Your task to perform on an android device: open app "DoorDash - Dasher" Image 0: 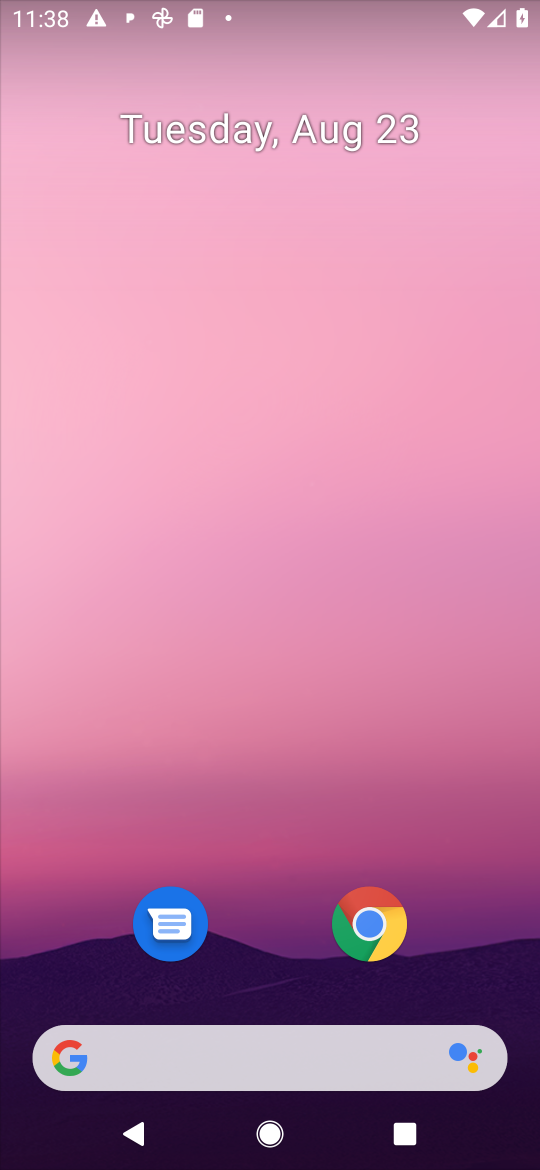
Step 0: press home button
Your task to perform on an android device: open app "DoorDash - Dasher" Image 1: 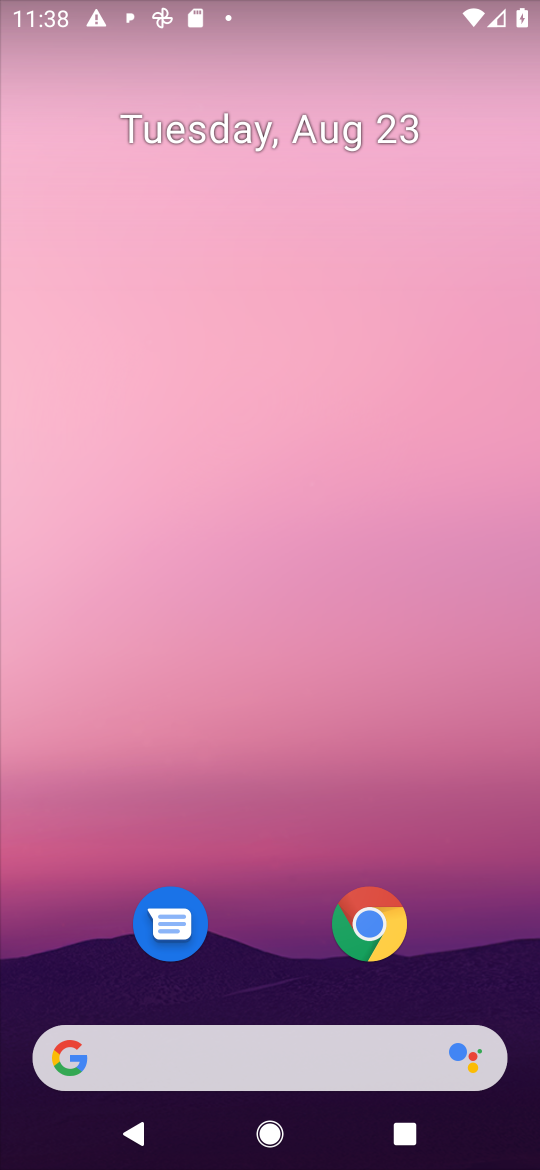
Step 1: drag from (462, 971) to (473, 136)
Your task to perform on an android device: open app "DoorDash - Dasher" Image 2: 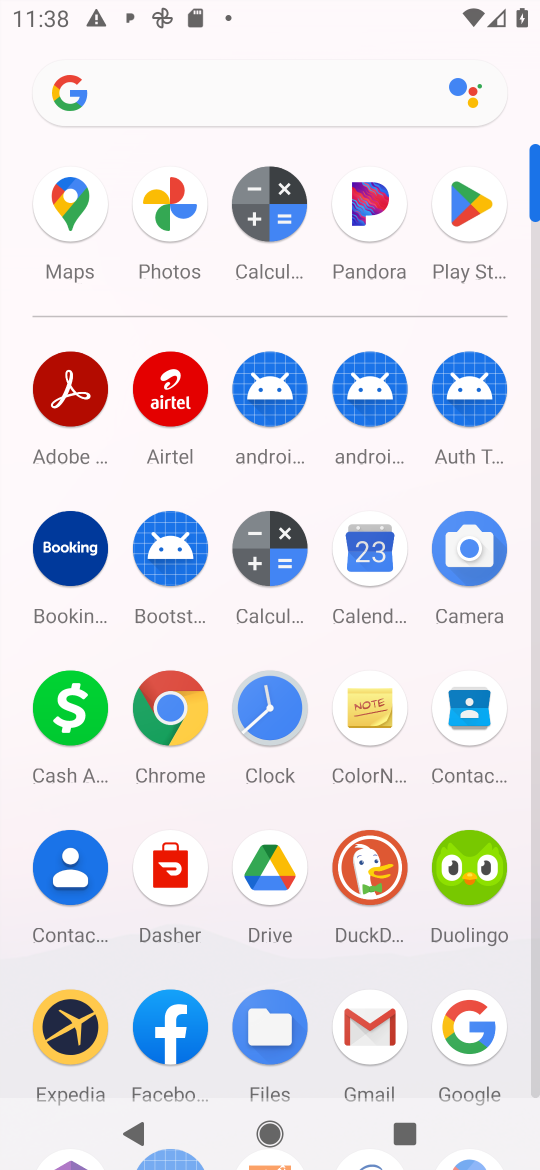
Step 2: click (473, 207)
Your task to perform on an android device: open app "DoorDash - Dasher" Image 3: 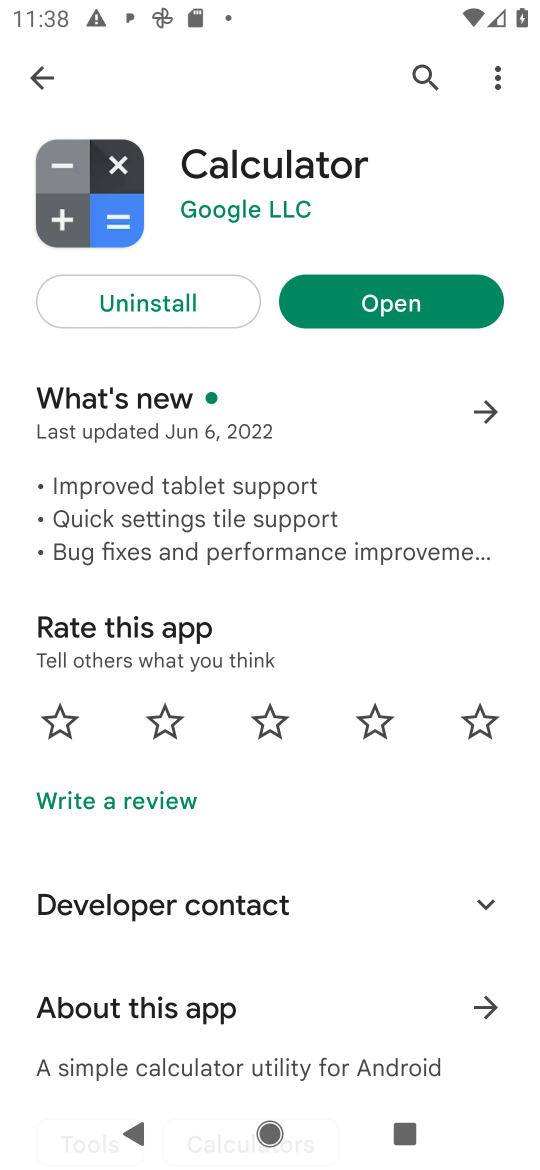
Step 3: press back button
Your task to perform on an android device: open app "DoorDash - Dasher" Image 4: 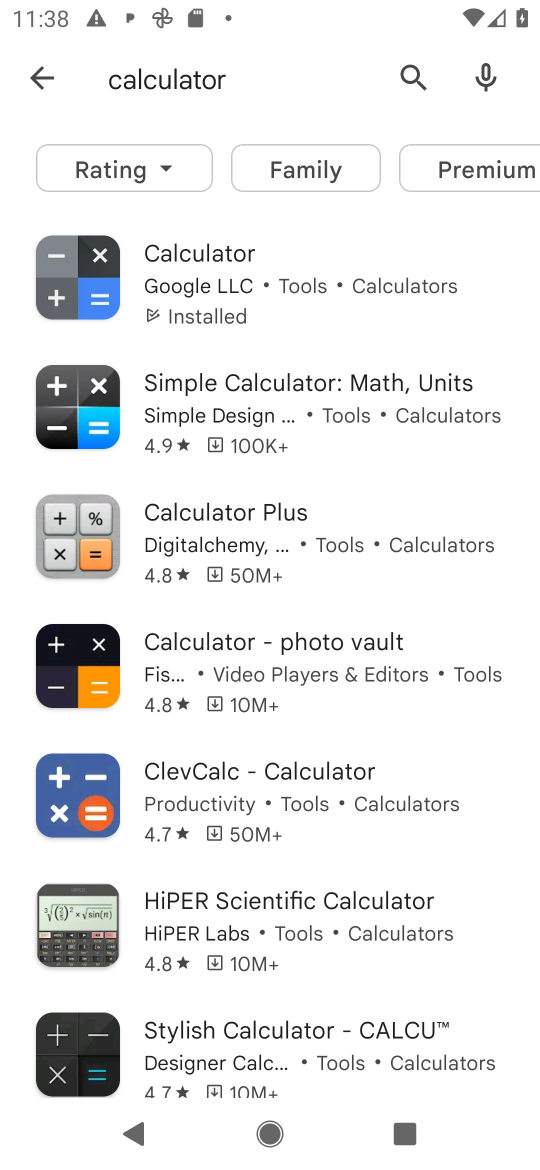
Step 4: press back button
Your task to perform on an android device: open app "DoorDash - Dasher" Image 5: 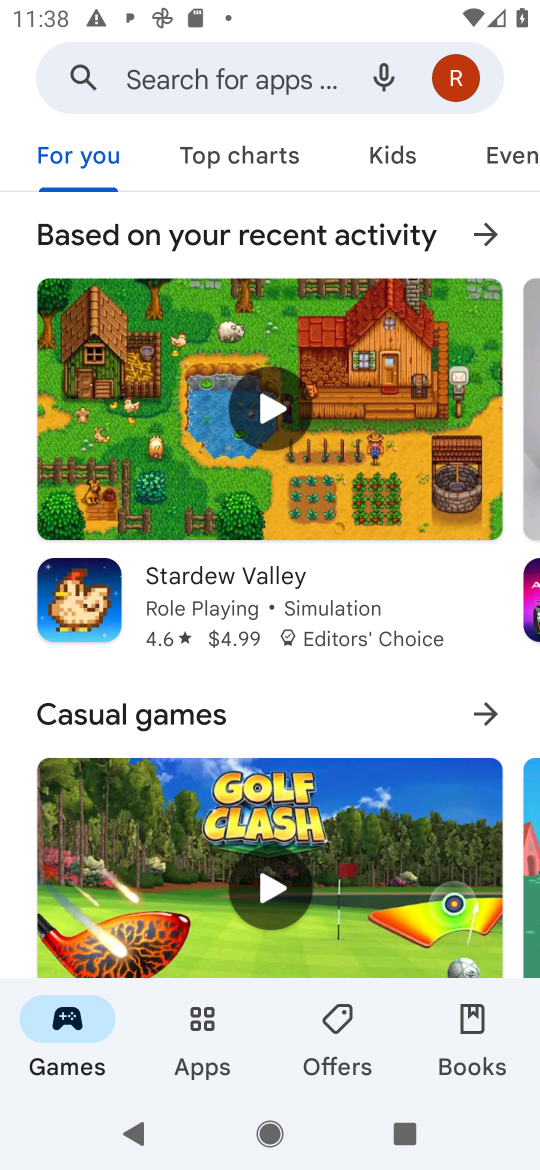
Step 5: click (219, 74)
Your task to perform on an android device: open app "DoorDash - Dasher" Image 6: 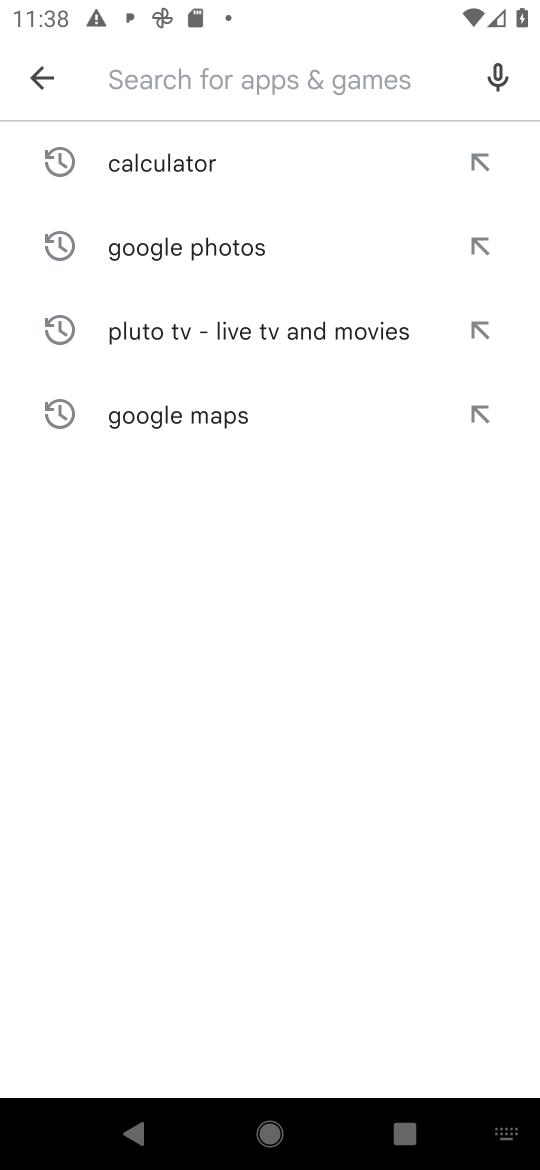
Step 6: type "DoorDash - Dasher"
Your task to perform on an android device: open app "DoorDash - Dasher" Image 7: 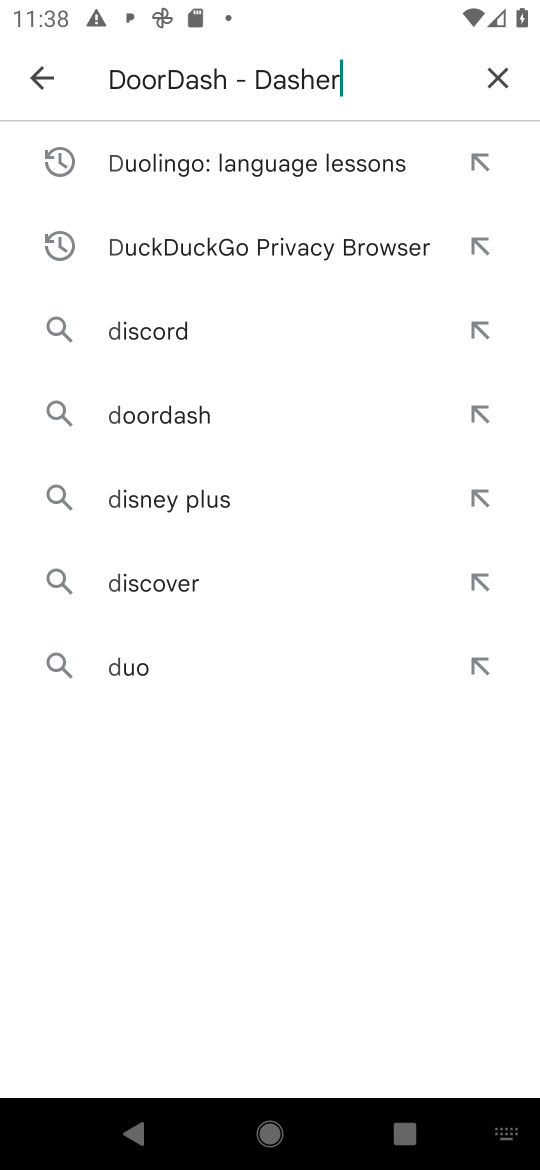
Step 7: press enter
Your task to perform on an android device: open app "DoorDash - Dasher" Image 8: 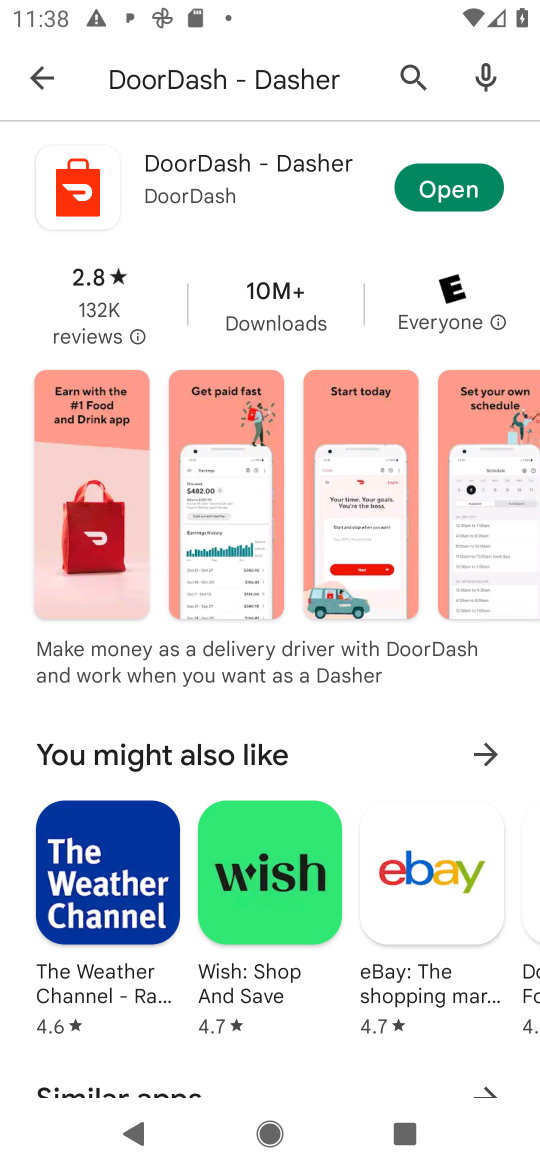
Step 8: click (458, 183)
Your task to perform on an android device: open app "DoorDash - Dasher" Image 9: 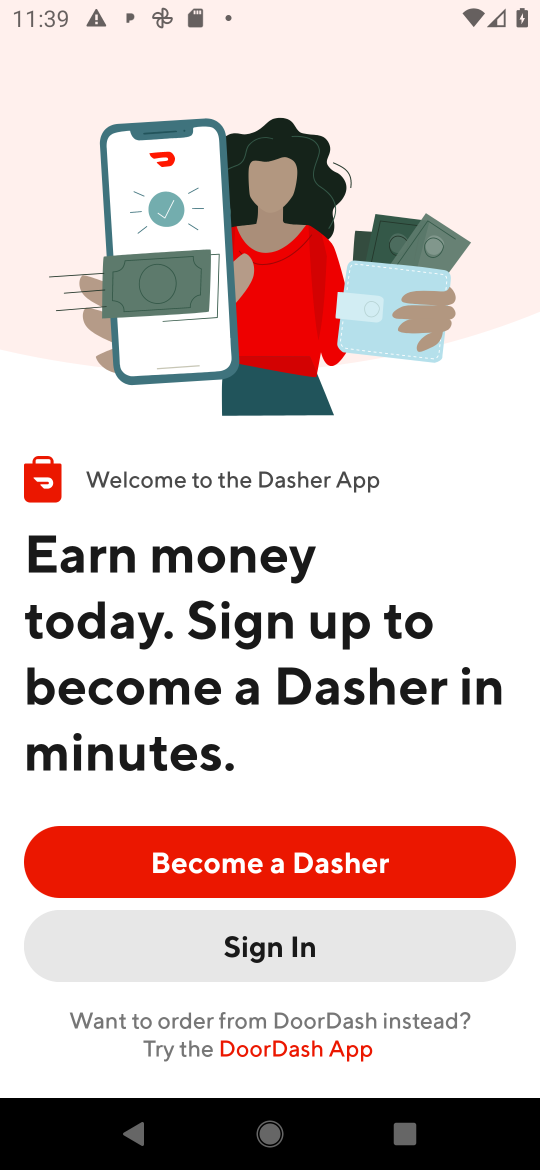
Step 9: task complete